Your task to perform on an android device: set the stopwatch Image 0: 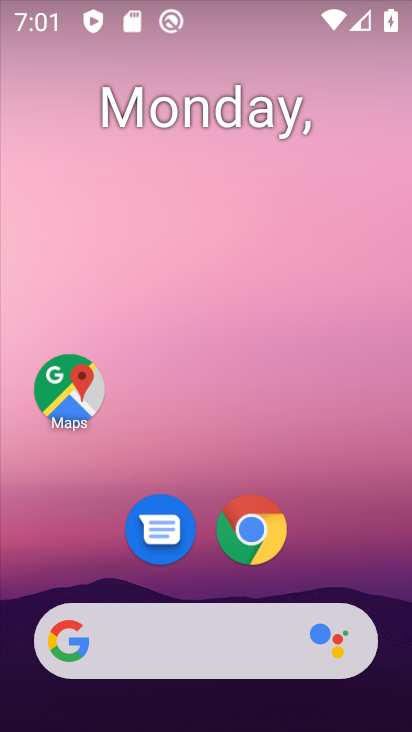
Step 0: drag from (319, 490) to (195, 119)
Your task to perform on an android device: set the stopwatch Image 1: 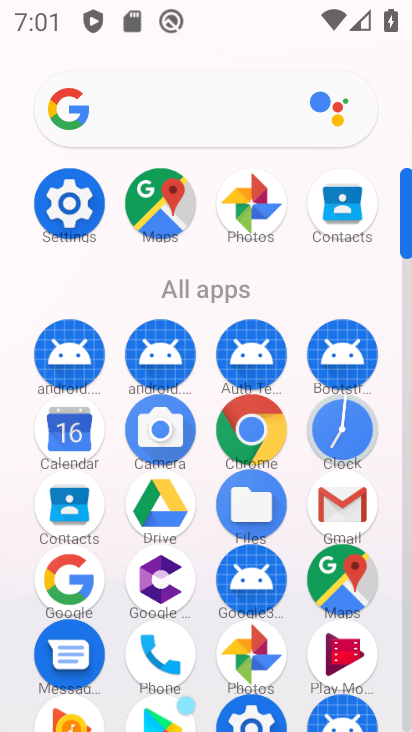
Step 1: click (348, 426)
Your task to perform on an android device: set the stopwatch Image 2: 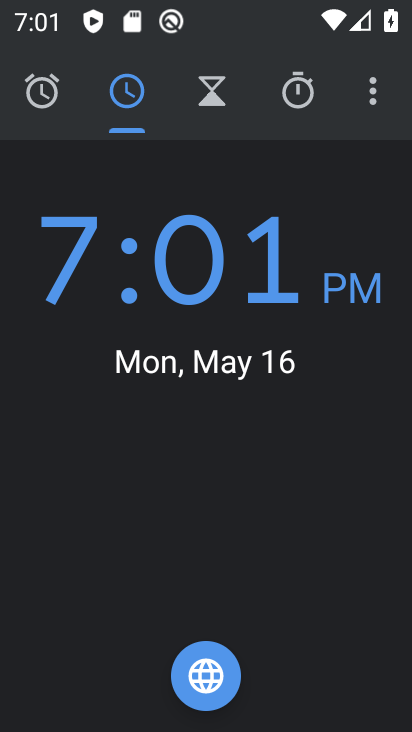
Step 2: click (296, 106)
Your task to perform on an android device: set the stopwatch Image 3: 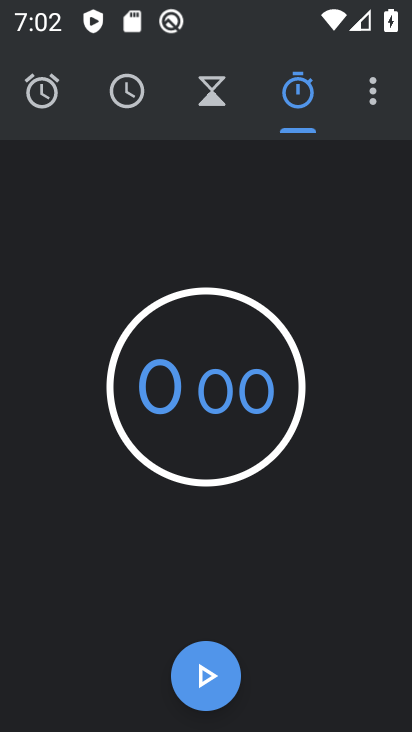
Step 3: task complete